Your task to perform on an android device: Toggle the flashlight Image 0: 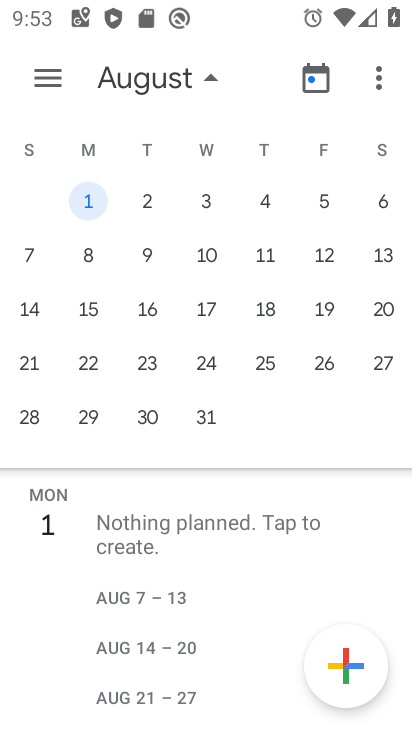
Step 0: drag from (387, 586) to (389, 435)
Your task to perform on an android device: Toggle the flashlight Image 1: 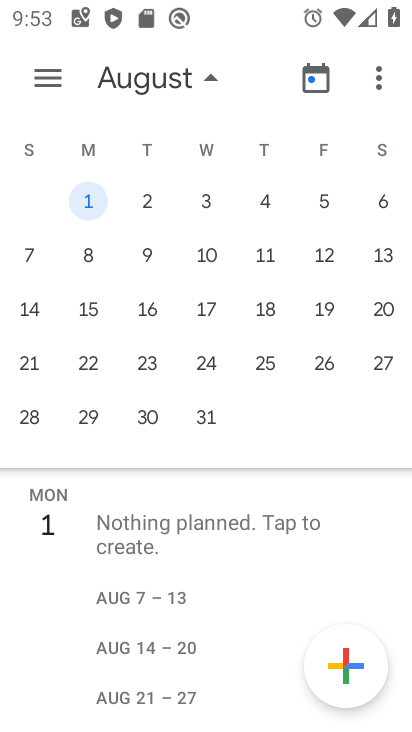
Step 1: press home button
Your task to perform on an android device: Toggle the flashlight Image 2: 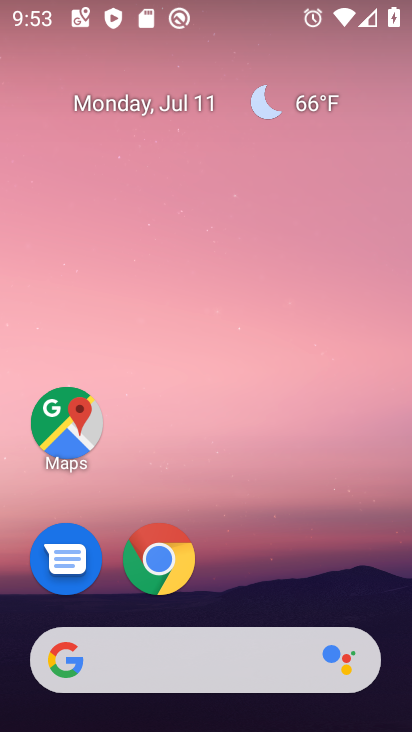
Step 2: drag from (217, 0) to (247, 308)
Your task to perform on an android device: Toggle the flashlight Image 3: 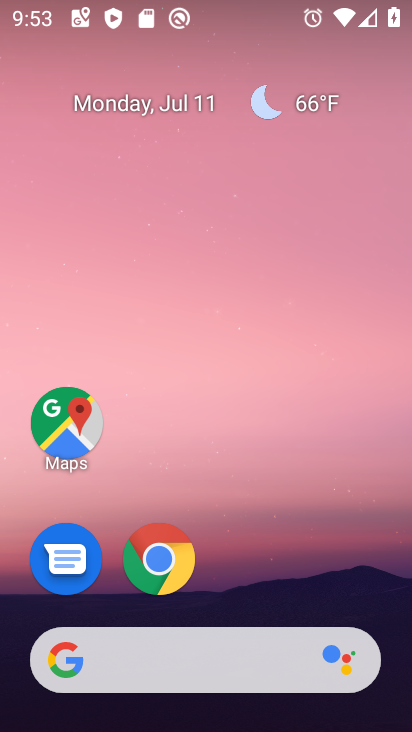
Step 3: drag from (230, 5) to (243, 408)
Your task to perform on an android device: Toggle the flashlight Image 4: 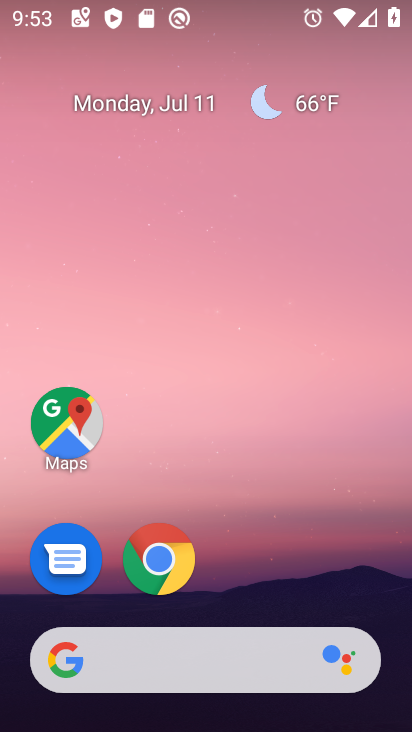
Step 4: drag from (227, 0) to (286, 406)
Your task to perform on an android device: Toggle the flashlight Image 5: 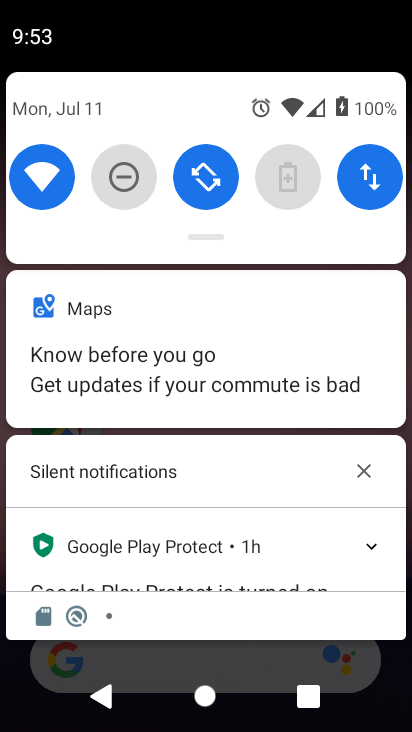
Step 5: drag from (239, 143) to (242, 406)
Your task to perform on an android device: Toggle the flashlight Image 6: 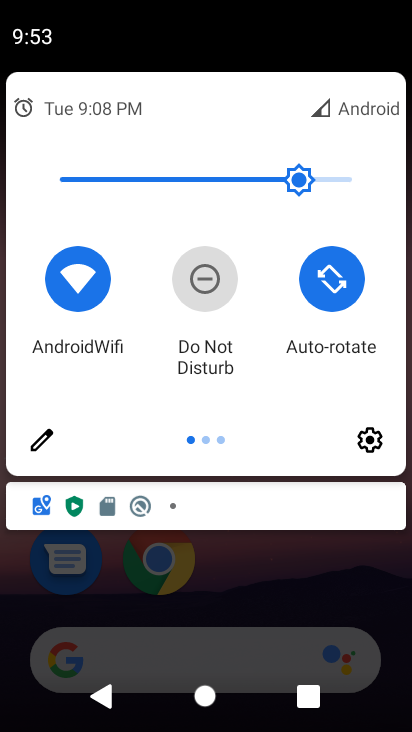
Step 6: click (44, 452)
Your task to perform on an android device: Toggle the flashlight Image 7: 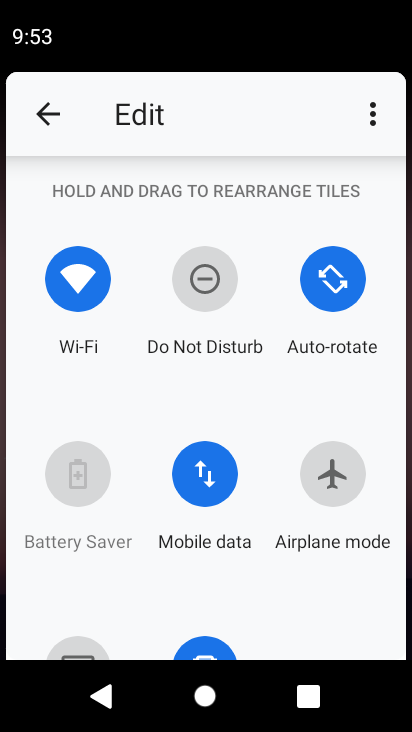
Step 7: task complete